Your task to perform on an android device: Go to wifi settings Image 0: 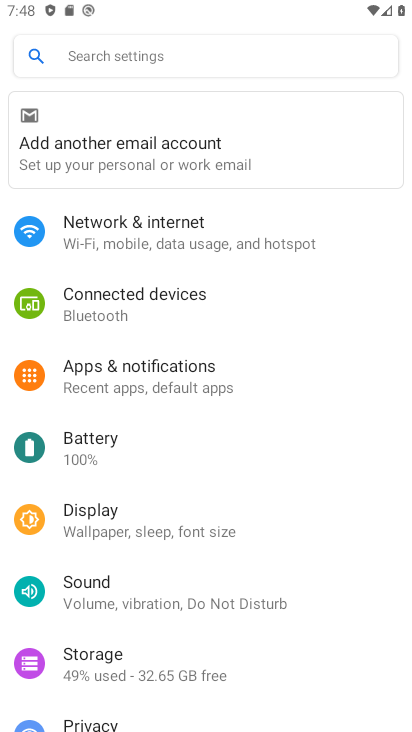
Step 0: click (136, 242)
Your task to perform on an android device: Go to wifi settings Image 1: 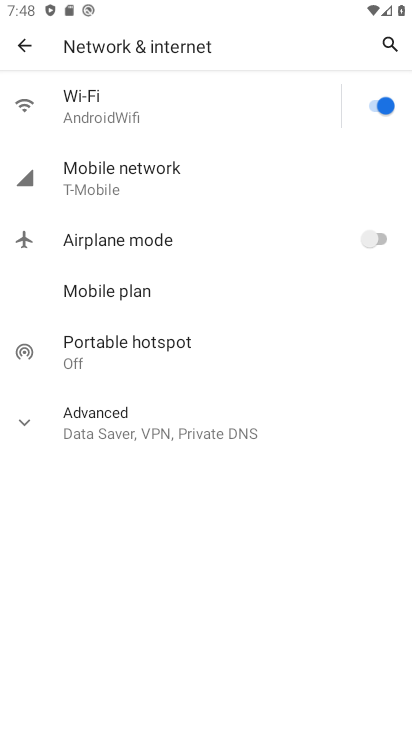
Step 1: click (187, 99)
Your task to perform on an android device: Go to wifi settings Image 2: 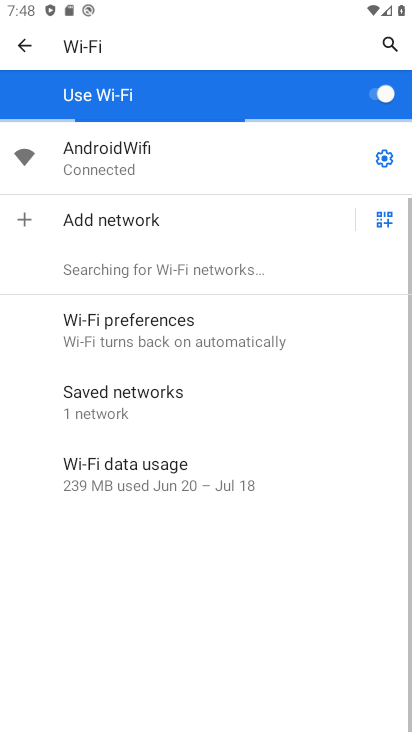
Step 2: click (377, 161)
Your task to perform on an android device: Go to wifi settings Image 3: 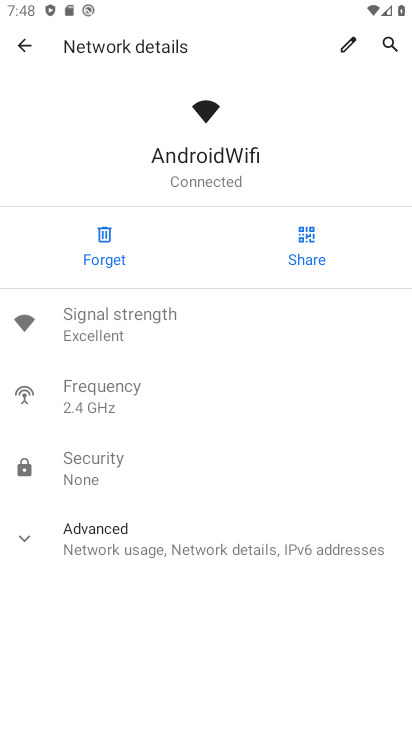
Step 3: click (41, 540)
Your task to perform on an android device: Go to wifi settings Image 4: 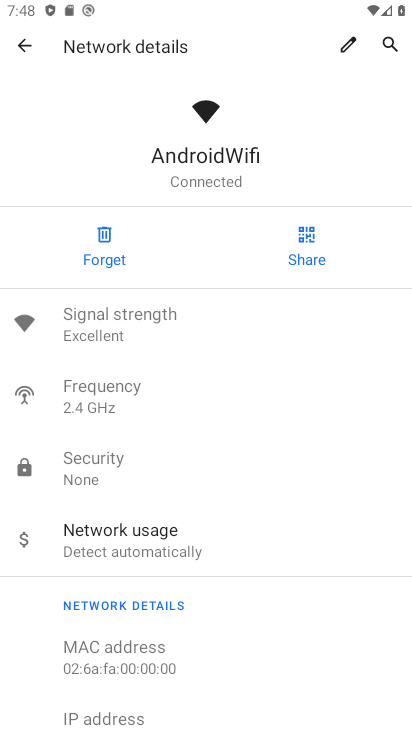
Step 4: click (347, 245)
Your task to perform on an android device: Go to wifi settings Image 5: 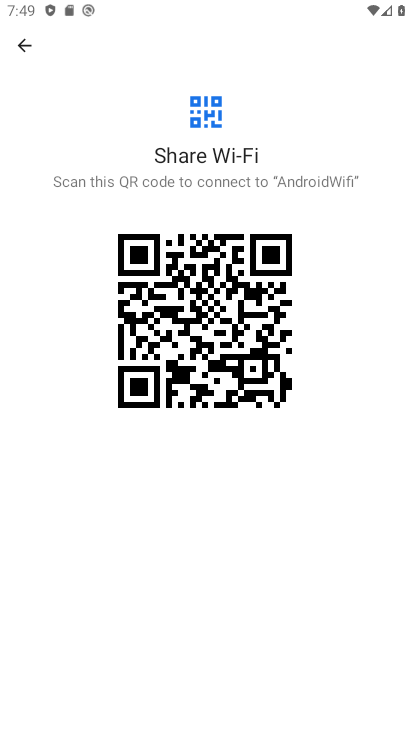
Step 5: drag from (289, 656) to (298, 403)
Your task to perform on an android device: Go to wifi settings Image 6: 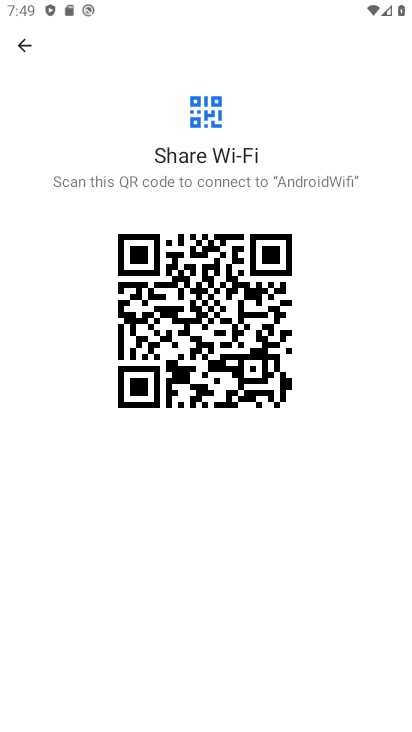
Step 6: click (18, 45)
Your task to perform on an android device: Go to wifi settings Image 7: 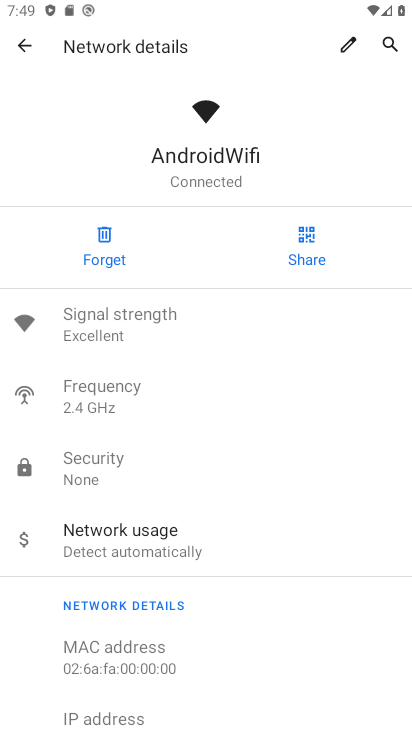
Step 7: task complete